Your task to perform on an android device: Is it going to rain this weekend? Image 0: 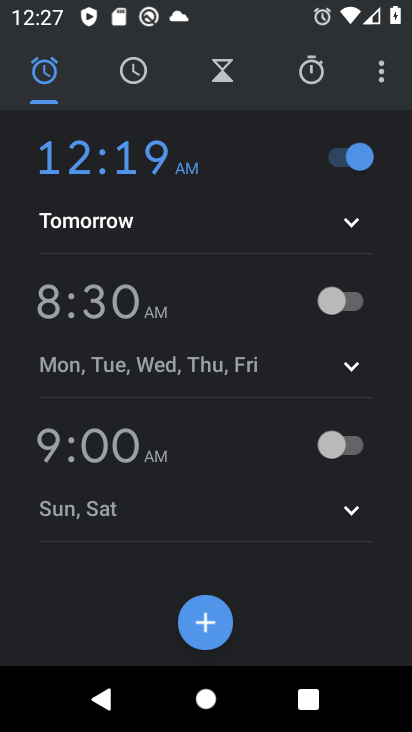
Step 0: press home button
Your task to perform on an android device: Is it going to rain this weekend? Image 1: 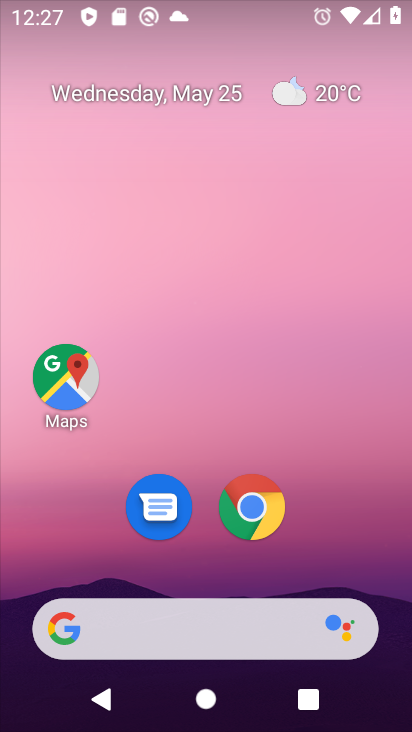
Step 1: drag from (340, 542) to (341, 112)
Your task to perform on an android device: Is it going to rain this weekend? Image 2: 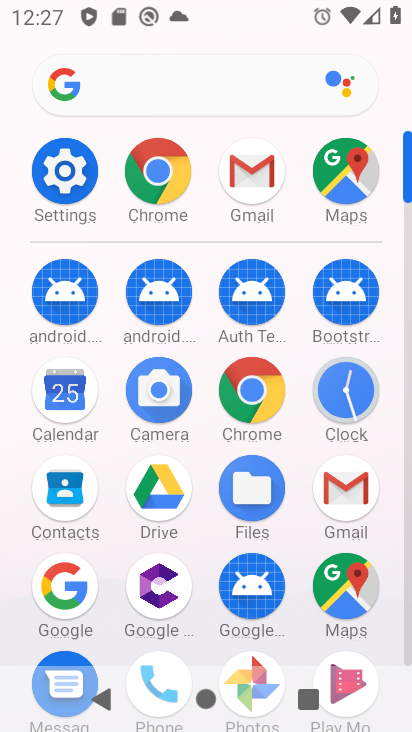
Step 2: click (245, 398)
Your task to perform on an android device: Is it going to rain this weekend? Image 3: 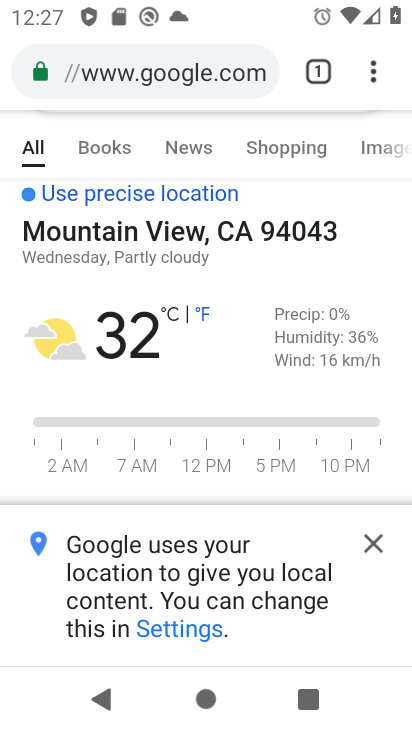
Step 3: click (216, 74)
Your task to perform on an android device: Is it going to rain this weekend? Image 4: 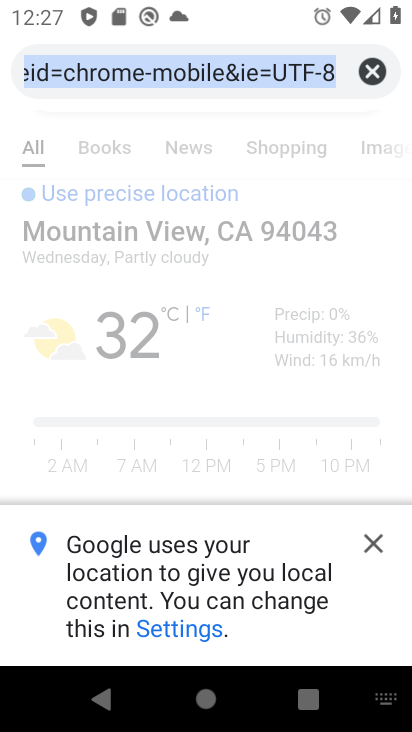
Step 4: click (383, 74)
Your task to perform on an android device: Is it going to rain this weekend? Image 5: 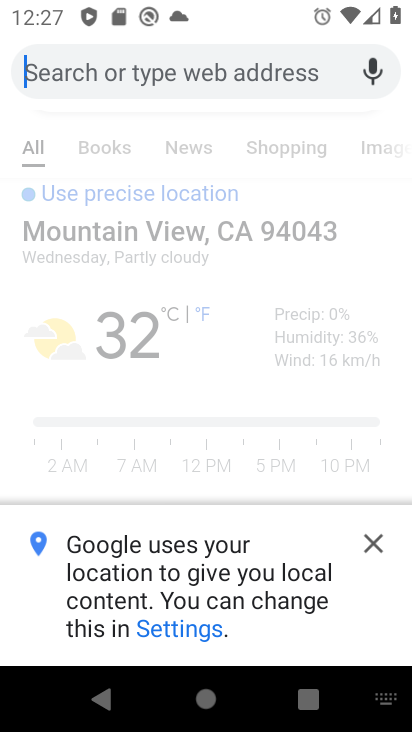
Step 5: type "is it going to rain this weekend "
Your task to perform on an android device: Is it going to rain this weekend? Image 6: 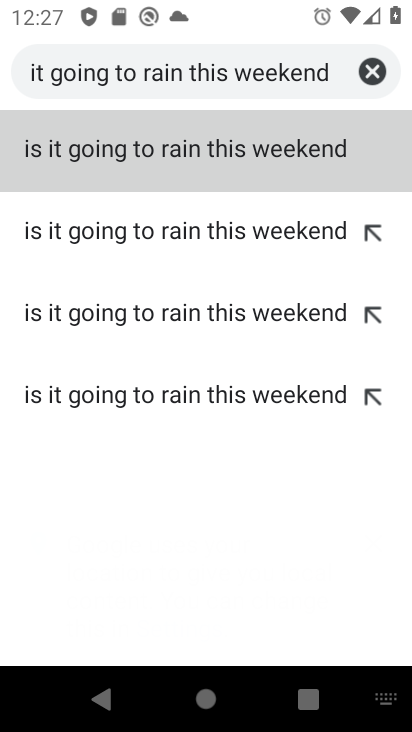
Step 6: click (273, 162)
Your task to perform on an android device: Is it going to rain this weekend? Image 7: 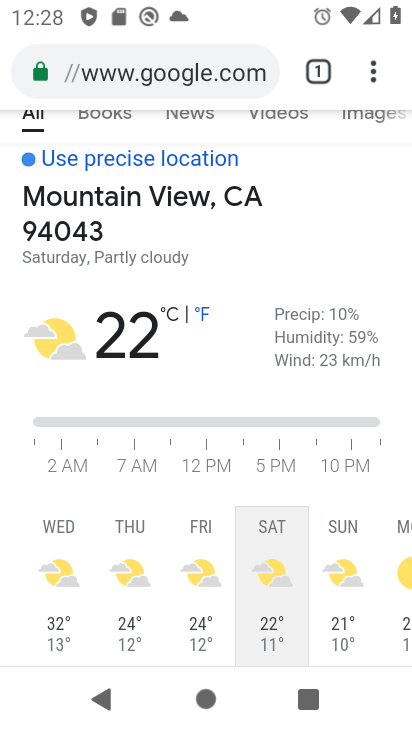
Step 7: task complete